Your task to perform on an android device: Show me productivity apps on the Play Store Image 0: 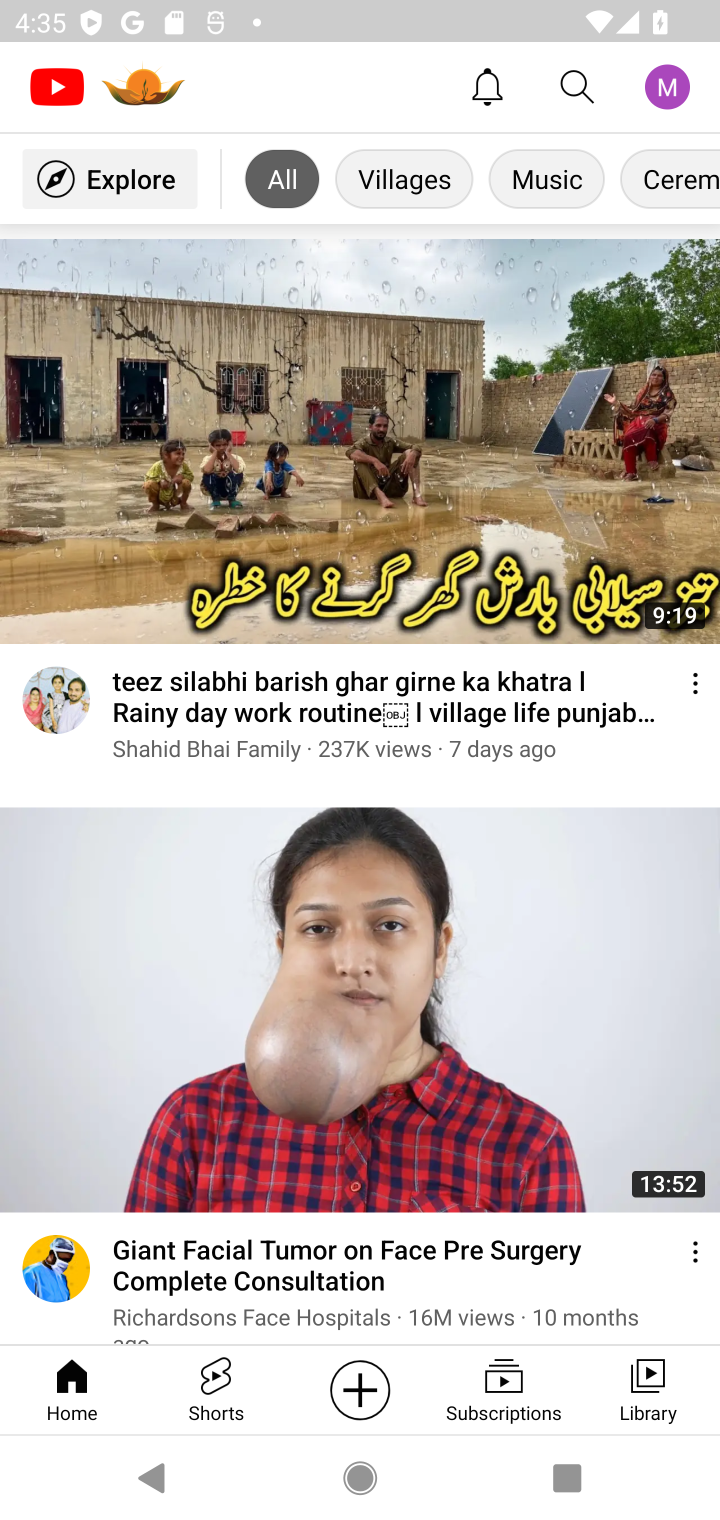
Step 0: press home button
Your task to perform on an android device: Show me productivity apps on the Play Store Image 1: 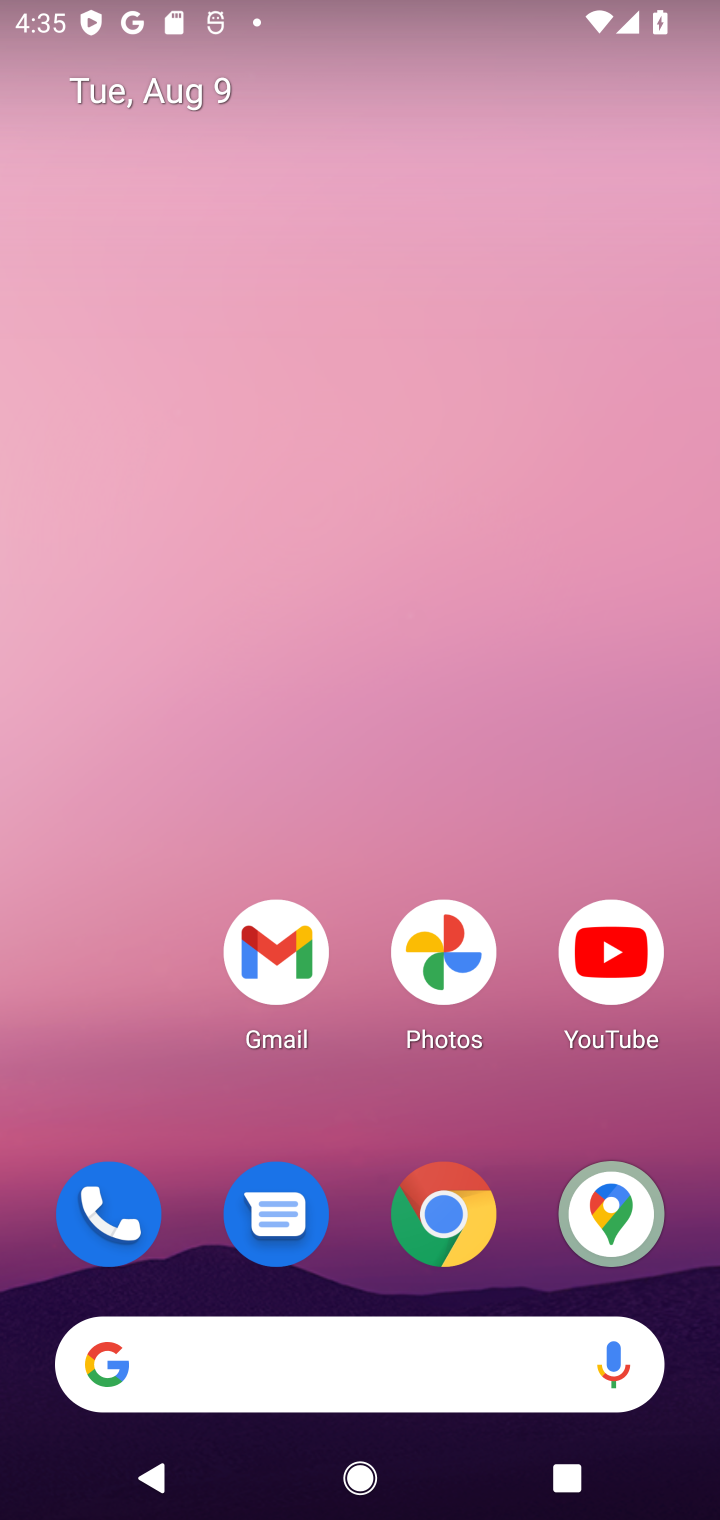
Step 1: drag from (403, 1247) to (213, 181)
Your task to perform on an android device: Show me productivity apps on the Play Store Image 2: 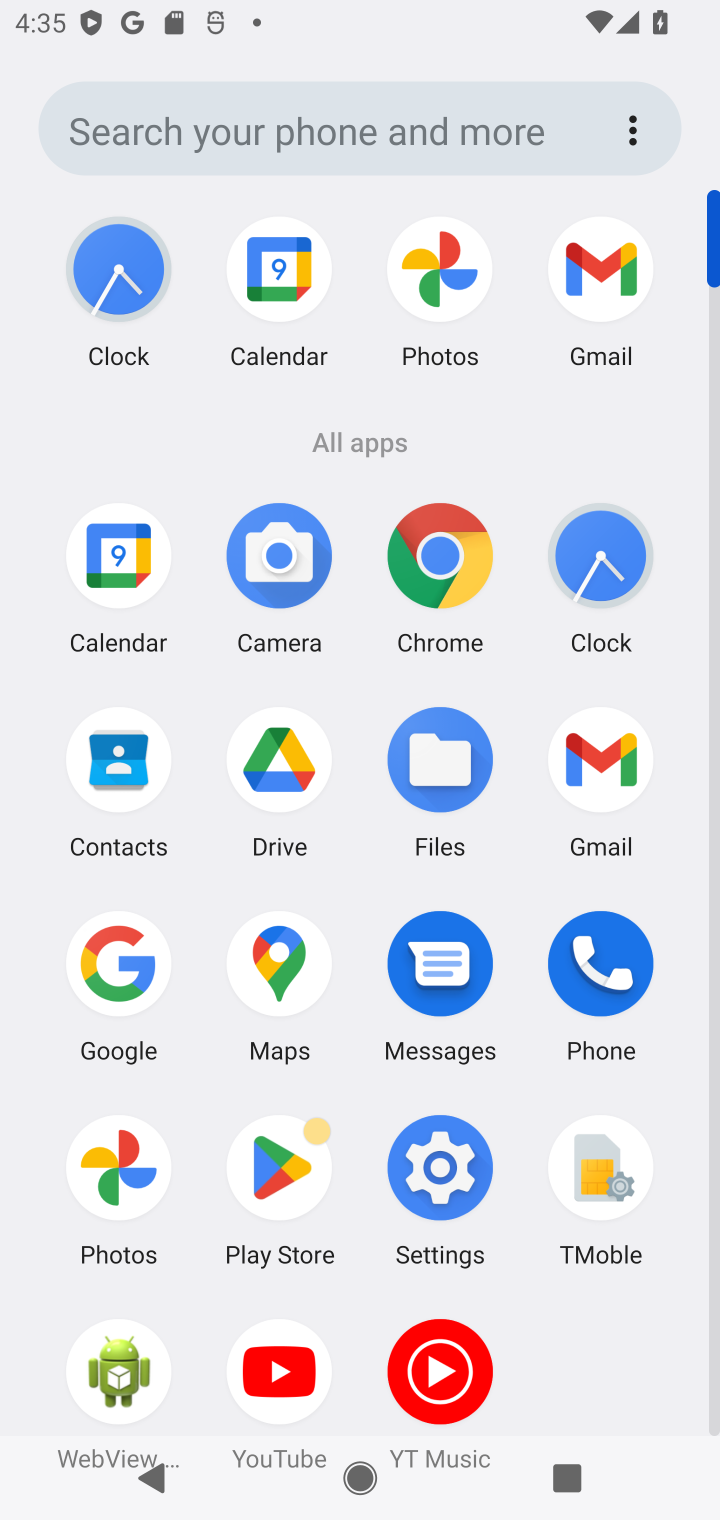
Step 2: click (262, 1162)
Your task to perform on an android device: Show me productivity apps on the Play Store Image 3: 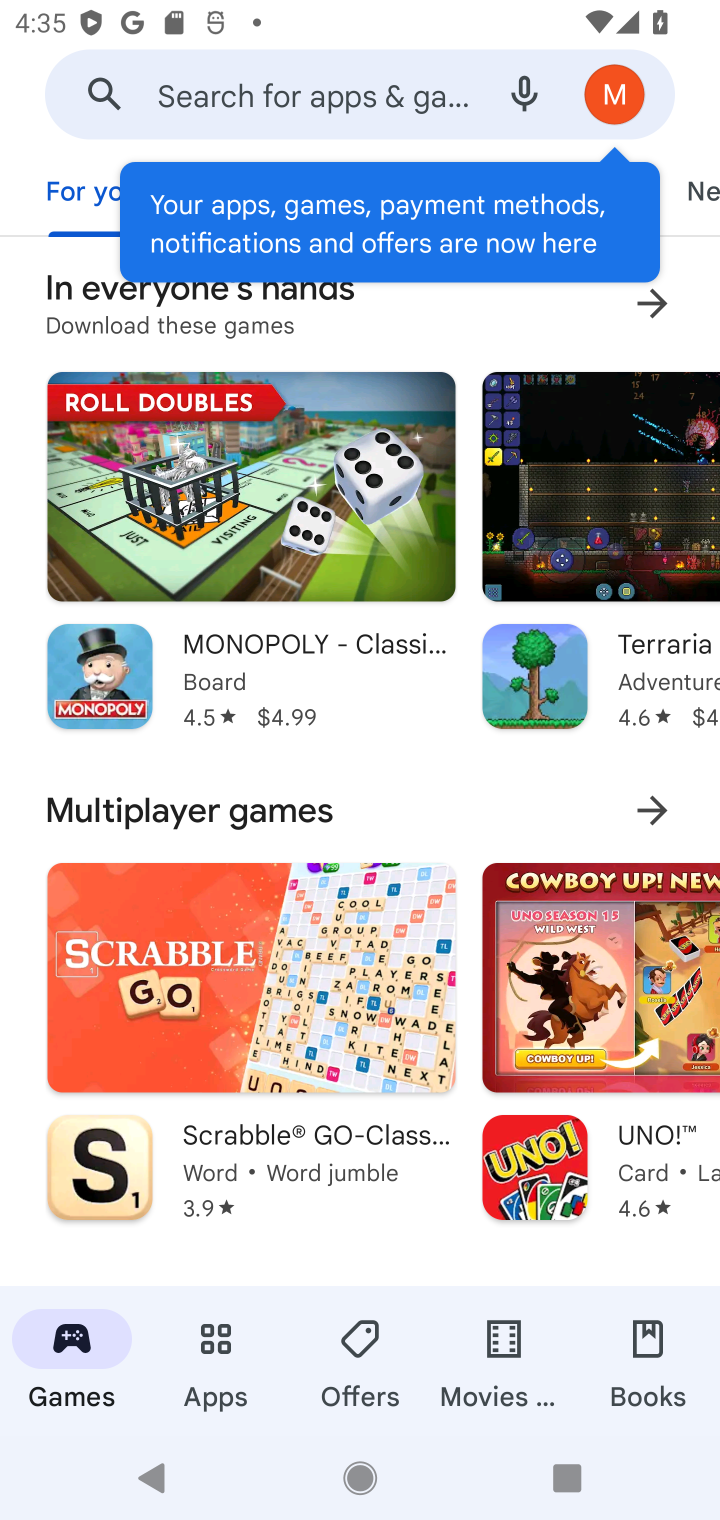
Step 3: click (300, 82)
Your task to perform on an android device: Show me productivity apps on the Play Store Image 4: 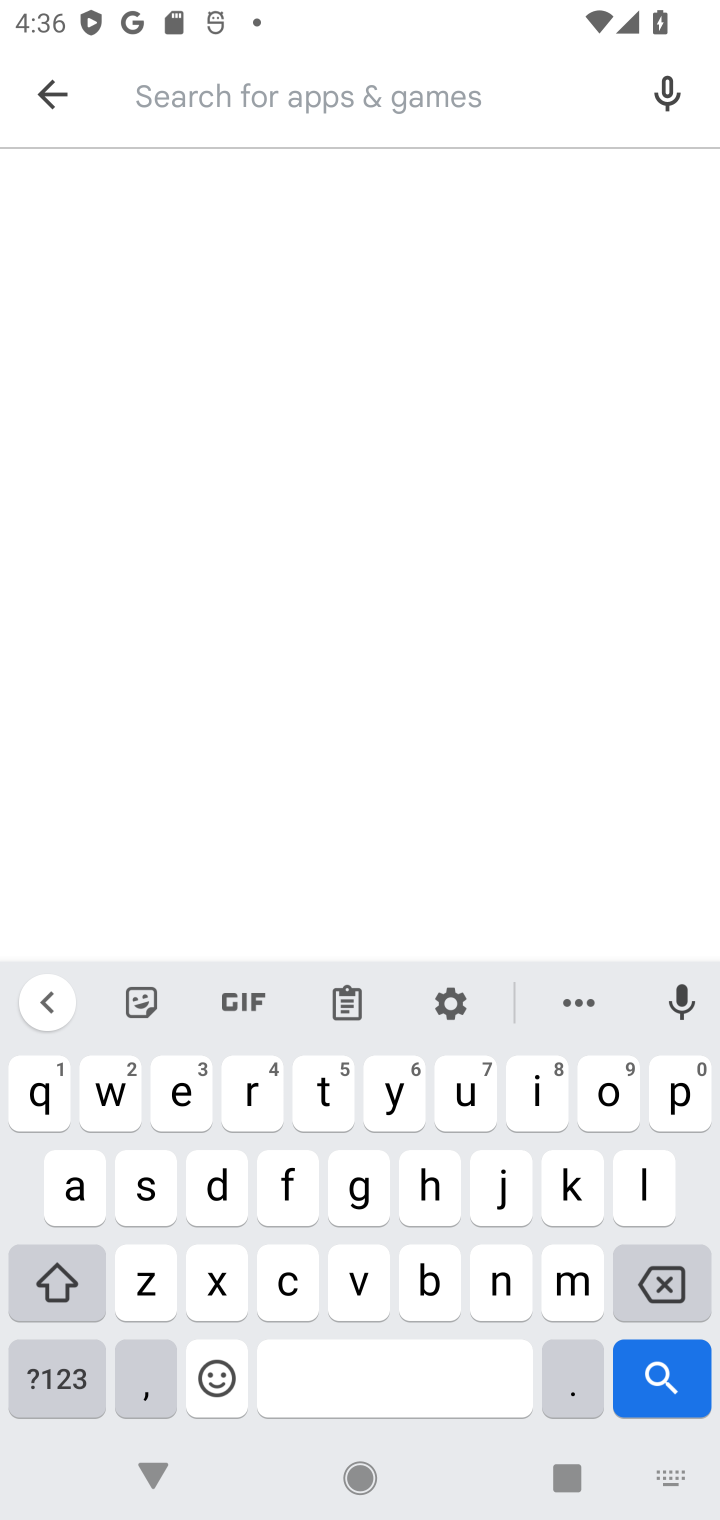
Step 4: click (670, 1100)
Your task to perform on an android device: Show me productivity apps on the Play Store Image 5: 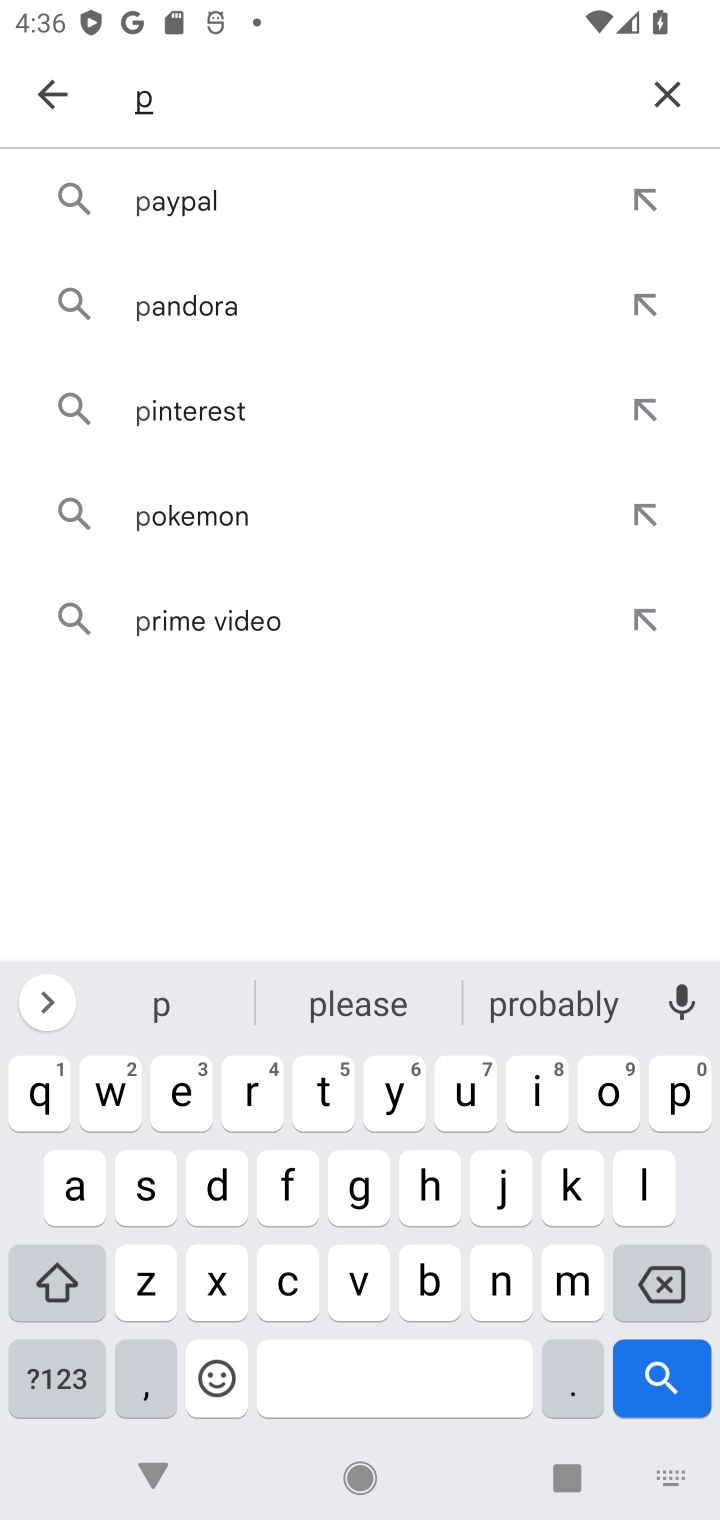
Step 5: click (250, 1106)
Your task to perform on an android device: Show me productivity apps on the Play Store Image 6: 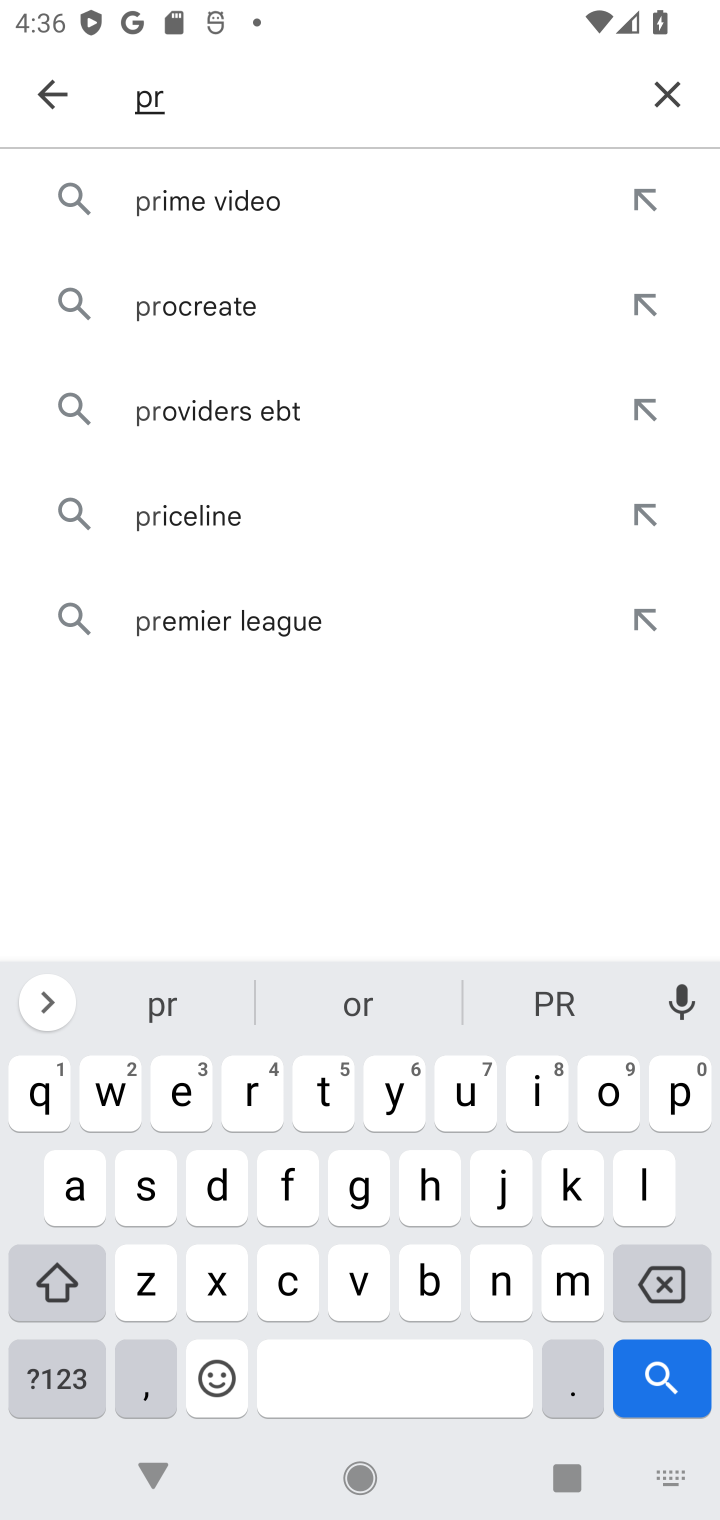
Step 6: click (591, 1093)
Your task to perform on an android device: Show me productivity apps on the Play Store Image 7: 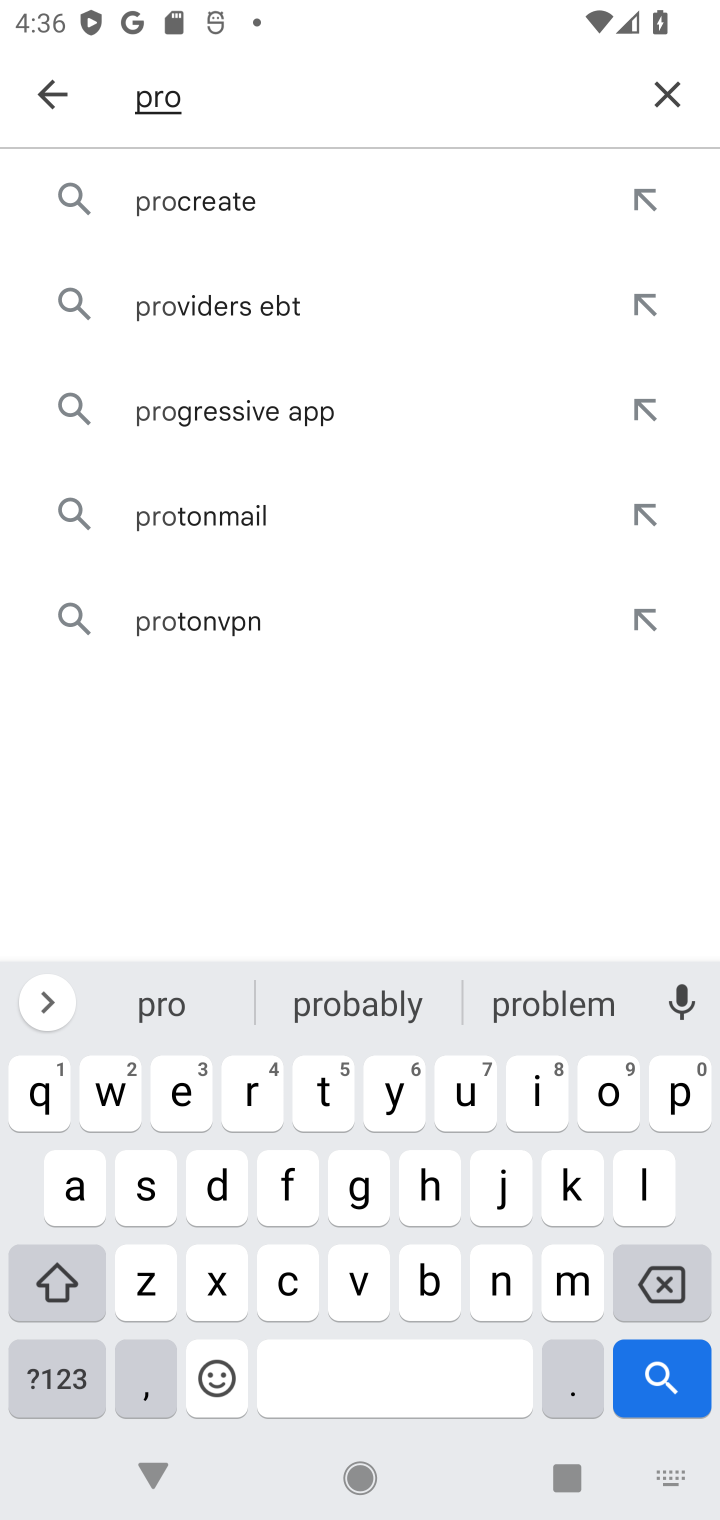
Step 7: click (221, 1180)
Your task to perform on an android device: Show me productivity apps on the Play Store Image 8: 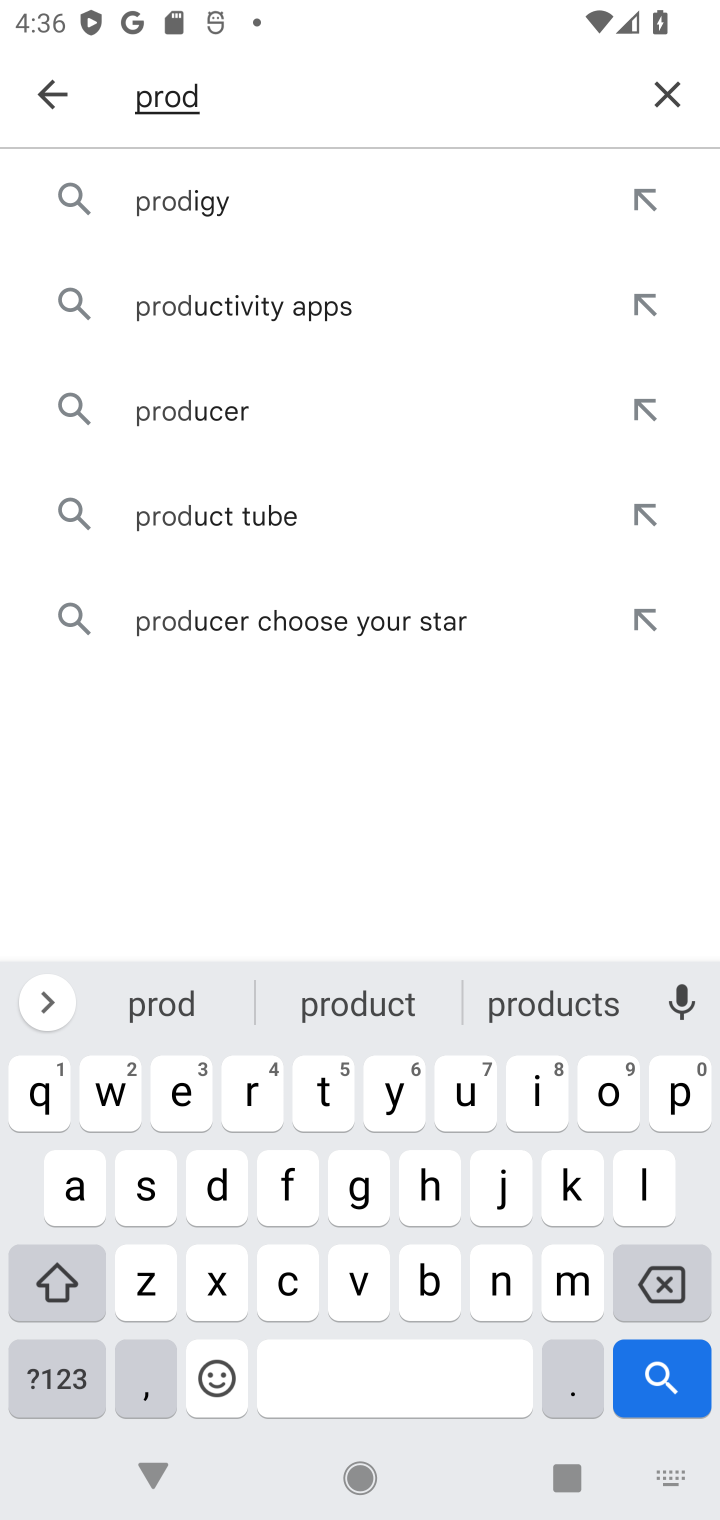
Step 8: click (268, 307)
Your task to perform on an android device: Show me productivity apps on the Play Store Image 9: 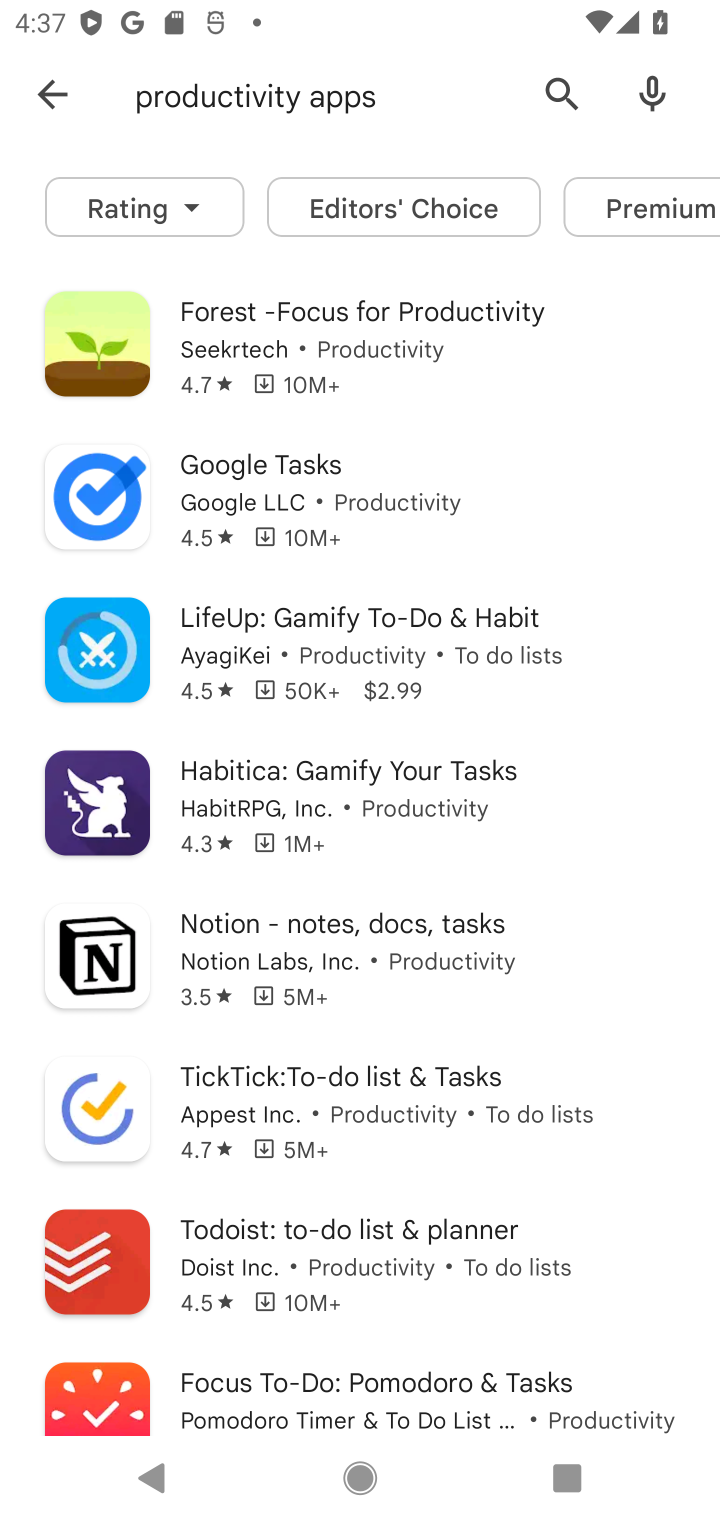
Step 9: task complete